Your task to perform on an android device: install app "Nova Launcher" Image 0: 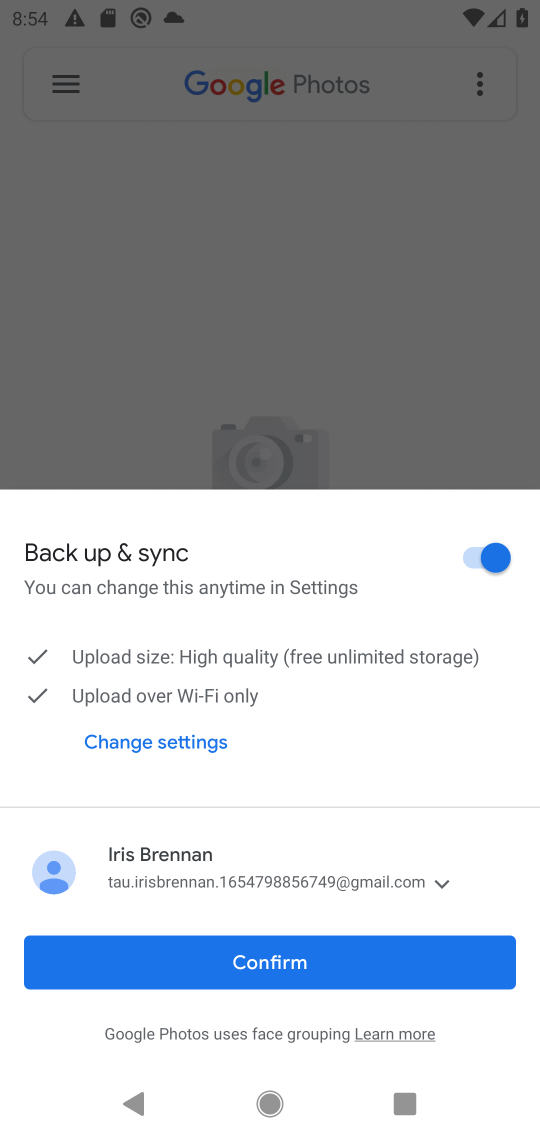
Step 0: press home button
Your task to perform on an android device: install app "Nova Launcher" Image 1: 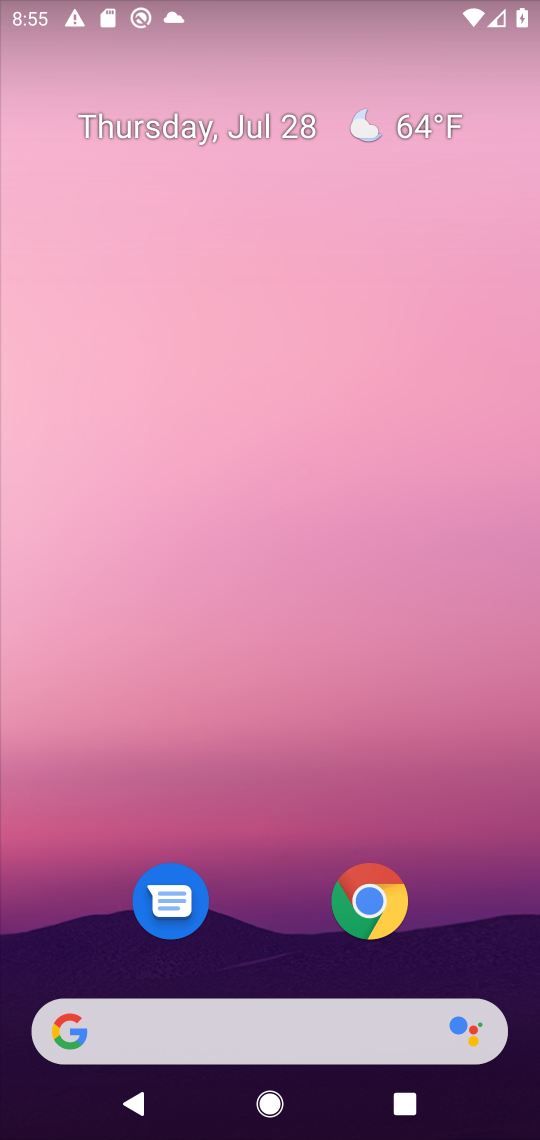
Step 1: drag from (519, 1069) to (389, 150)
Your task to perform on an android device: install app "Nova Launcher" Image 2: 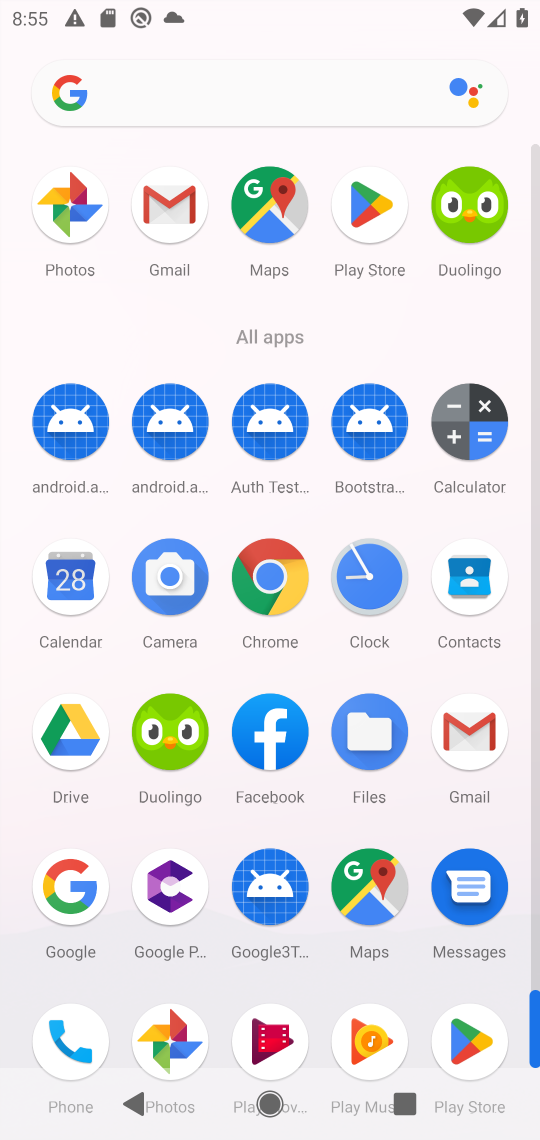
Step 2: click (382, 212)
Your task to perform on an android device: install app "Nova Launcher" Image 3: 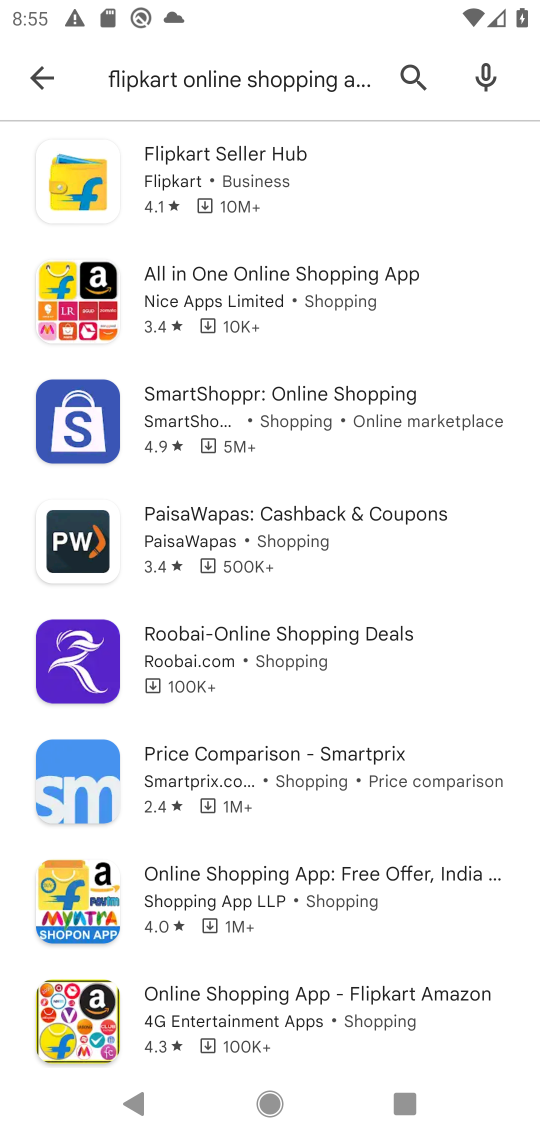
Step 3: click (408, 73)
Your task to perform on an android device: install app "Nova Launcher" Image 4: 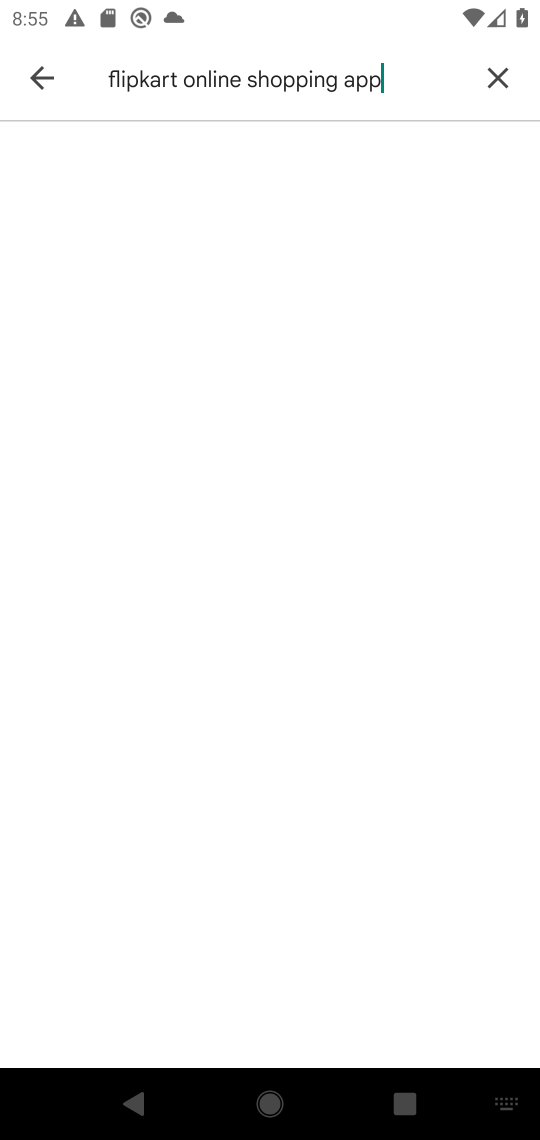
Step 4: click (494, 73)
Your task to perform on an android device: install app "Nova Launcher" Image 5: 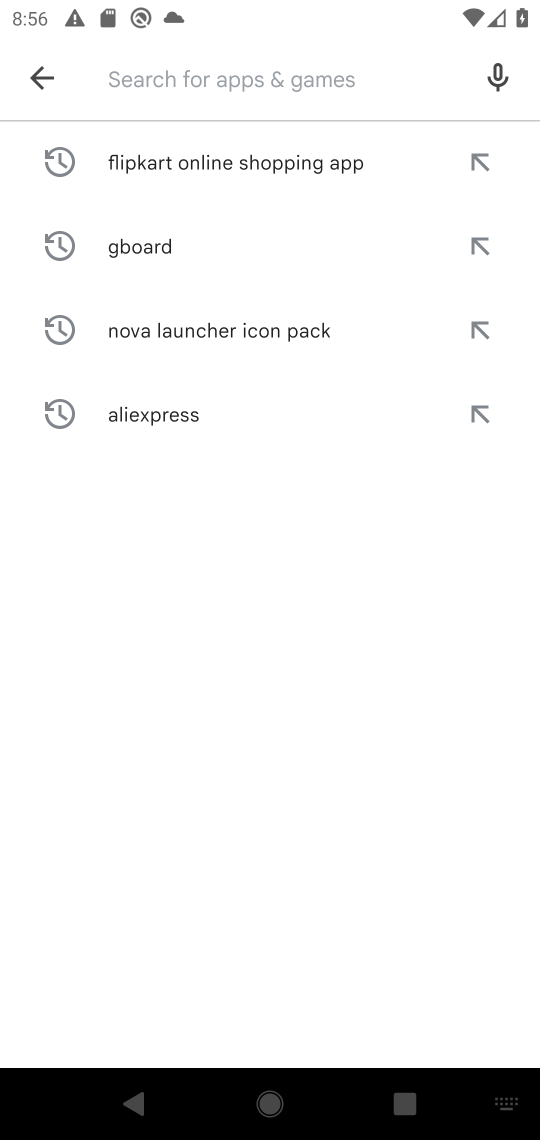
Step 5: type "Nova Launcher"
Your task to perform on an android device: install app "Nova Launcher" Image 6: 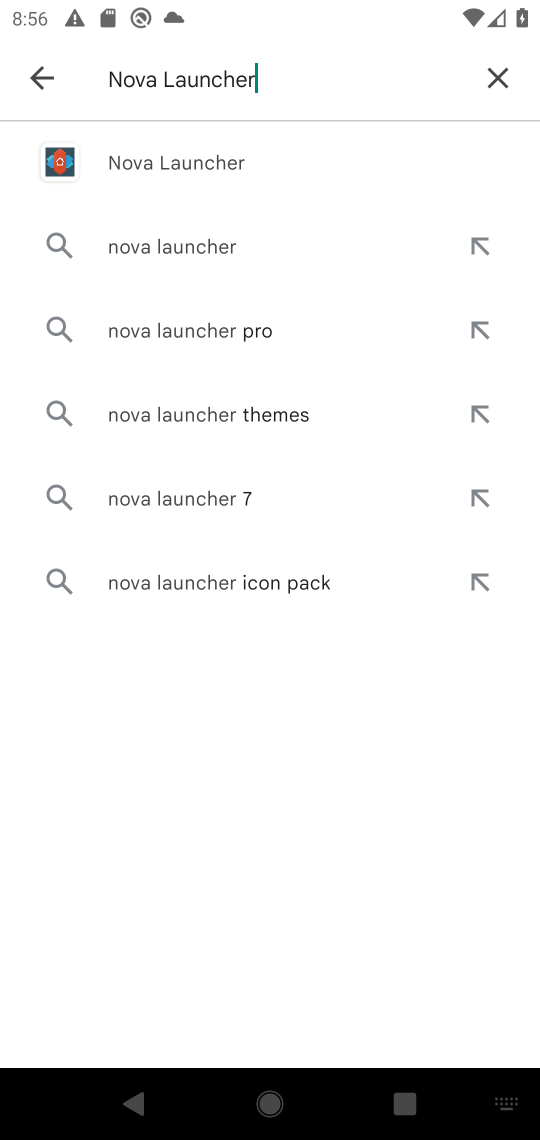
Step 6: click (176, 166)
Your task to perform on an android device: install app "Nova Launcher" Image 7: 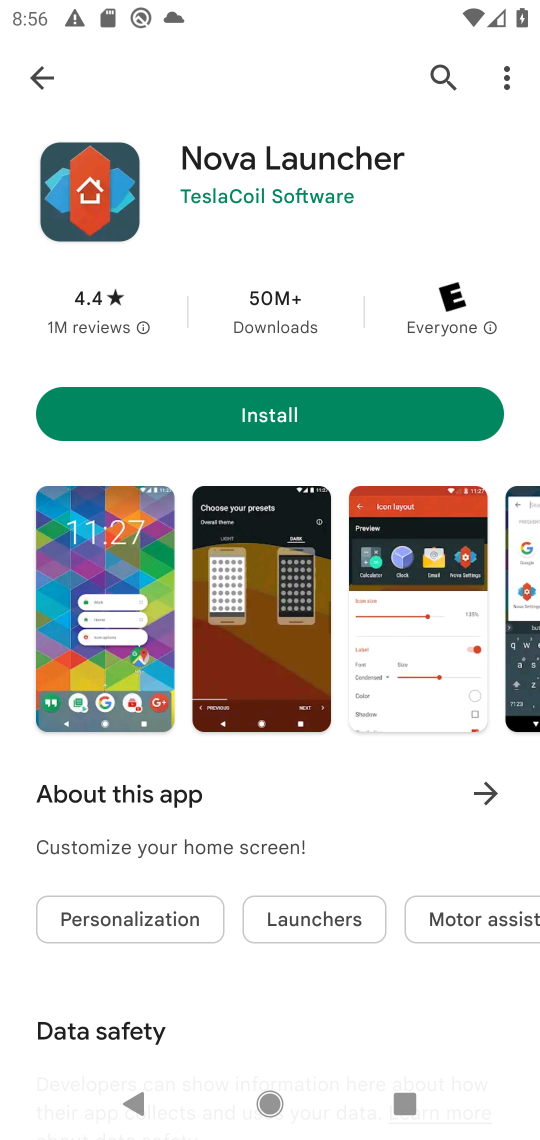
Step 7: click (200, 396)
Your task to perform on an android device: install app "Nova Launcher" Image 8: 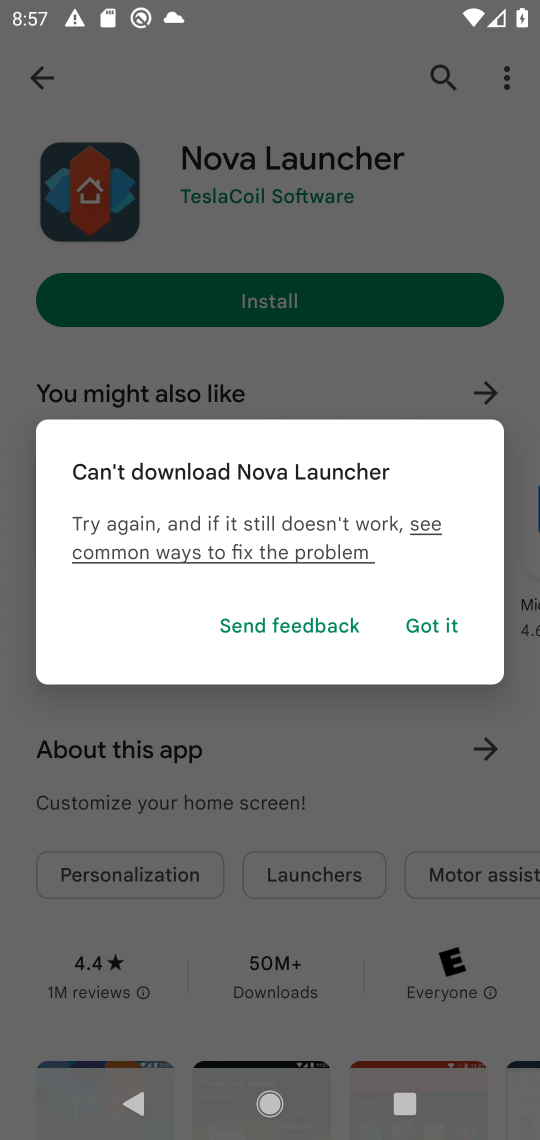
Step 8: click (434, 632)
Your task to perform on an android device: install app "Nova Launcher" Image 9: 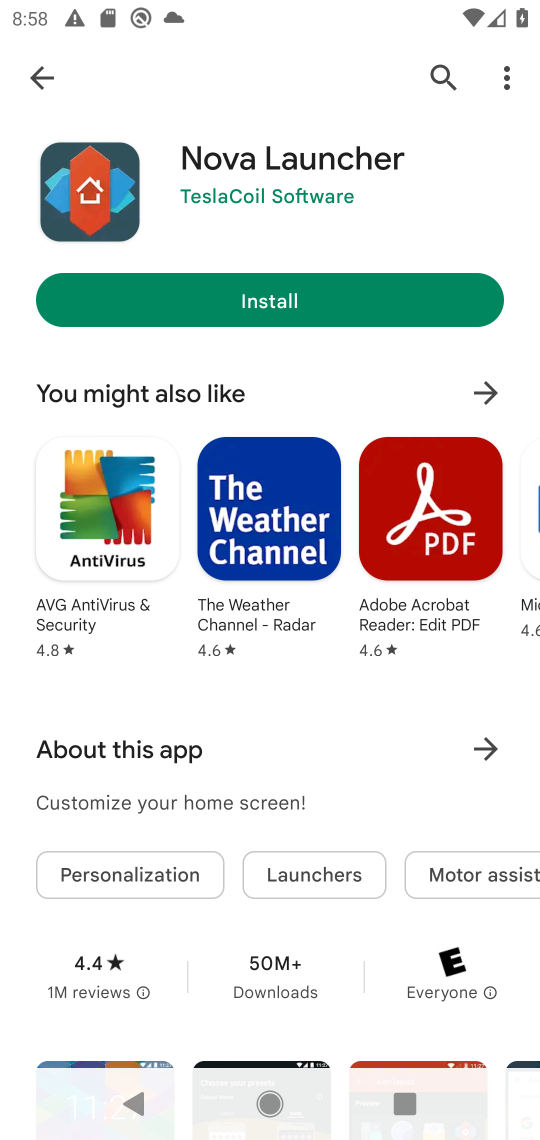
Step 9: click (274, 304)
Your task to perform on an android device: install app "Nova Launcher" Image 10: 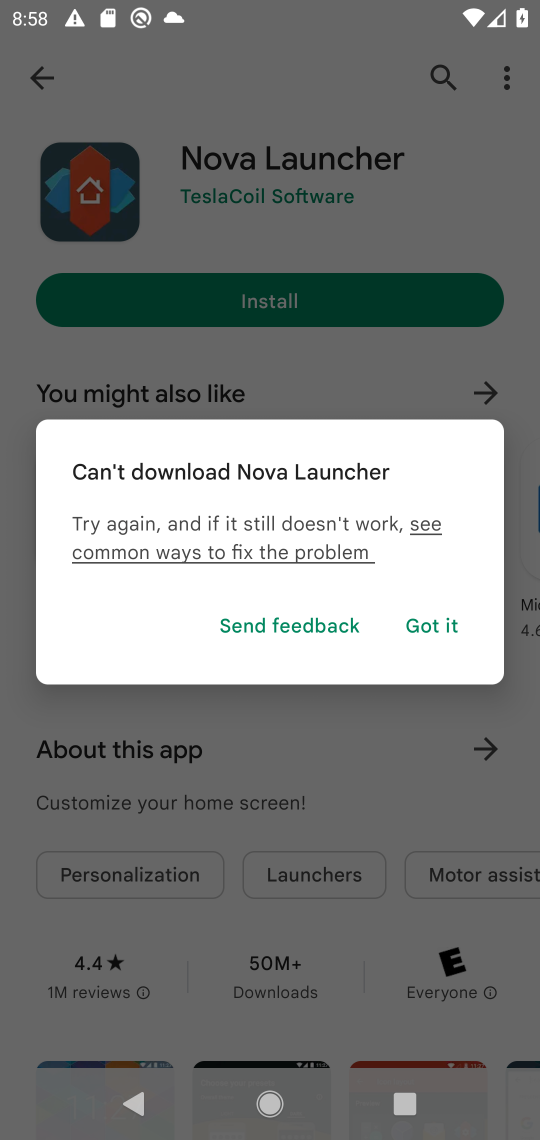
Step 10: task complete